Your task to perform on an android device: Do I have any events tomorrow? Image 0: 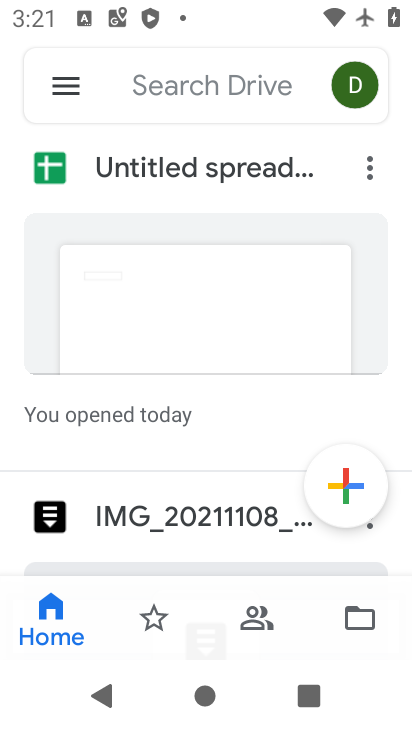
Step 0: press home button
Your task to perform on an android device: Do I have any events tomorrow? Image 1: 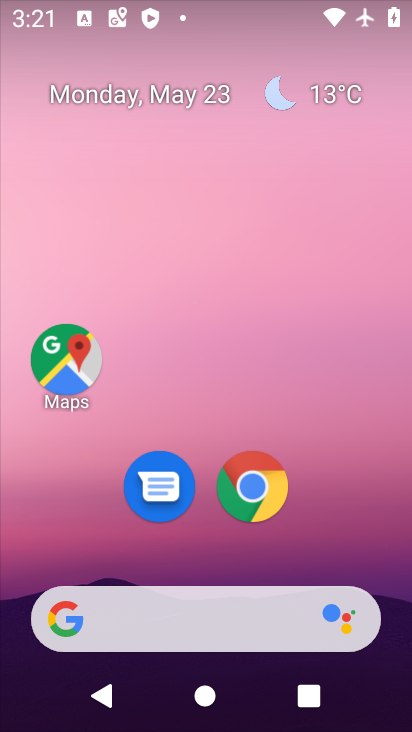
Step 1: drag from (395, 633) to (331, 125)
Your task to perform on an android device: Do I have any events tomorrow? Image 2: 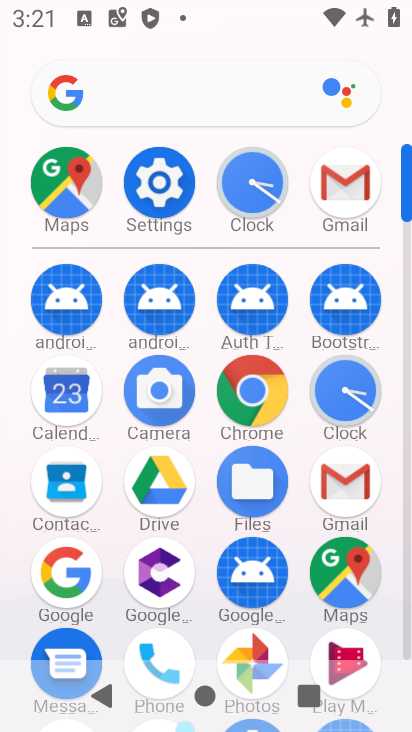
Step 2: click (410, 647)
Your task to perform on an android device: Do I have any events tomorrow? Image 3: 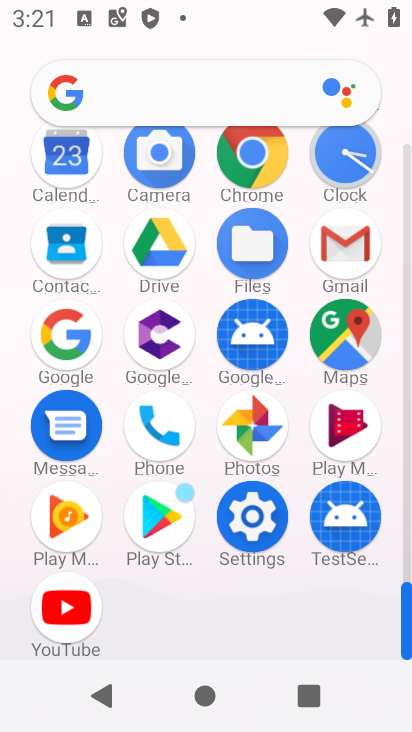
Step 3: click (63, 147)
Your task to perform on an android device: Do I have any events tomorrow? Image 4: 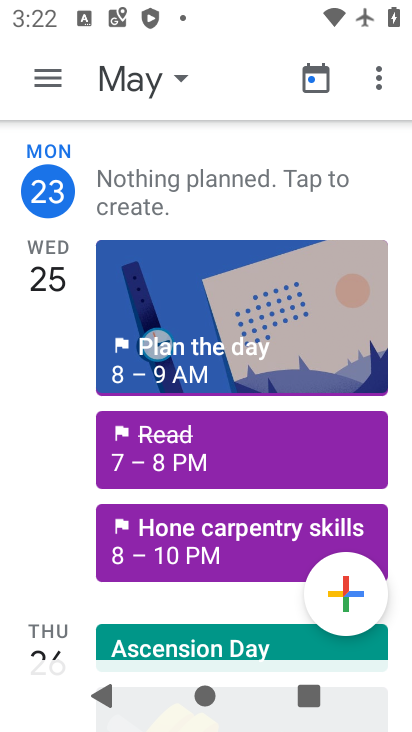
Step 4: click (42, 80)
Your task to perform on an android device: Do I have any events tomorrow? Image 5: 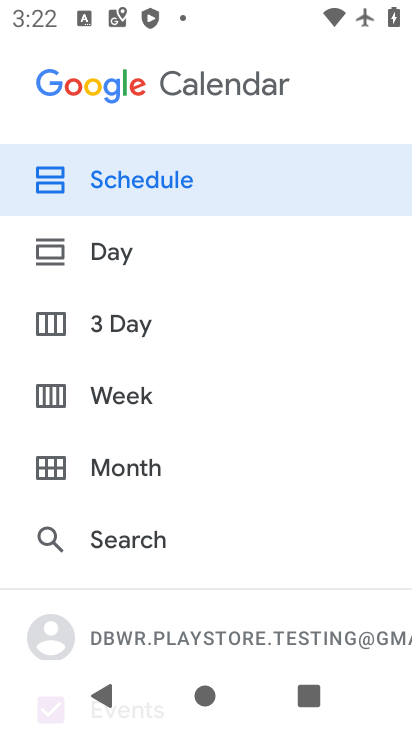
Step 5: click (112, 260)
Your task to perform on an android device: Do I have any events tomorrow? Image 6: 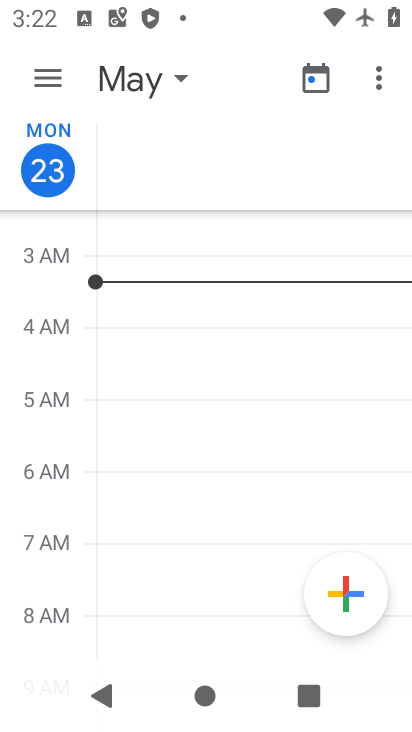
Step 6: click (167, 76)
Your task to perform on an android device: Do I have any events tomorrow? Image 7: 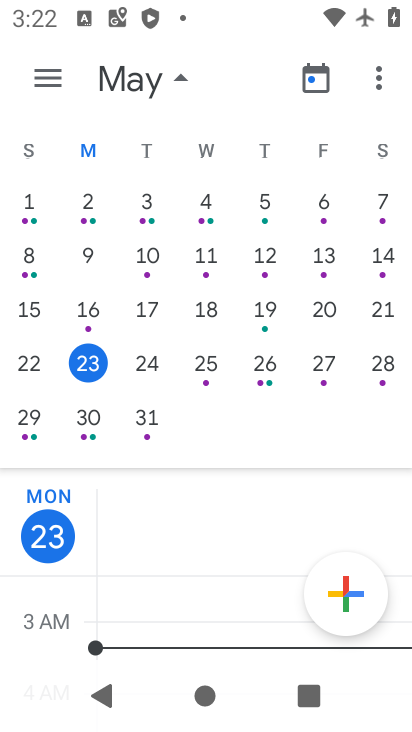
Step 7: click (146, 364)
Your task to perform on an android device: Do I have any events tomorrow? Image 8: 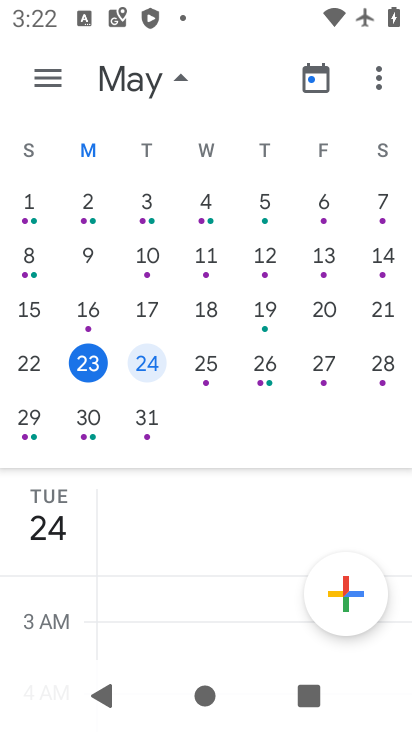
Step 8: task complete